Your task to perform on an android device: Go to Google maps Image 0: 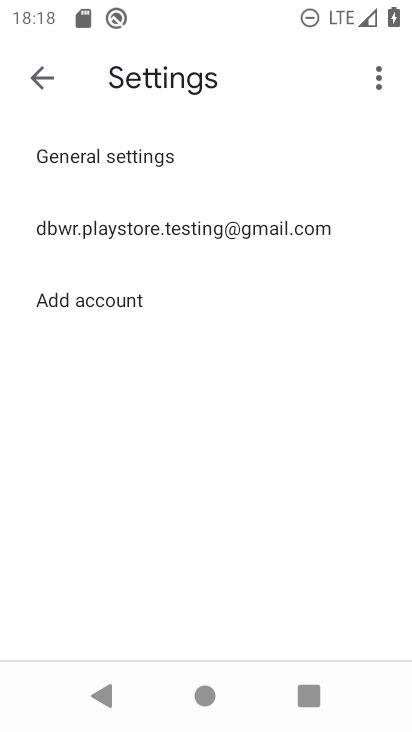
Step 0: press home button
Your task to perform on an android device: Go to Google maps Image 1: 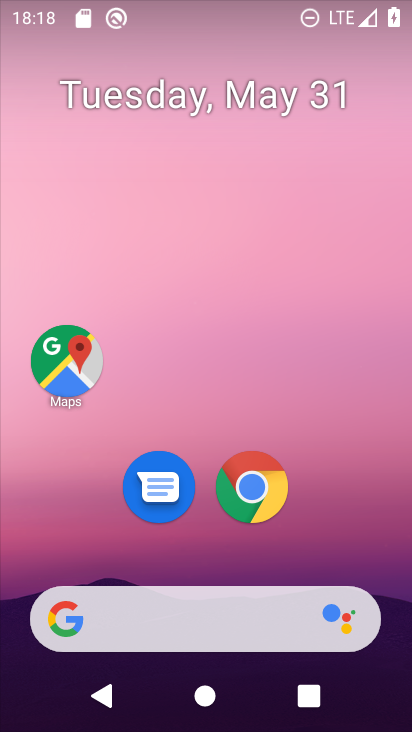
Step 1: click (49, 351)
Your task to perform on an android device: Go to Google maps Image 2: 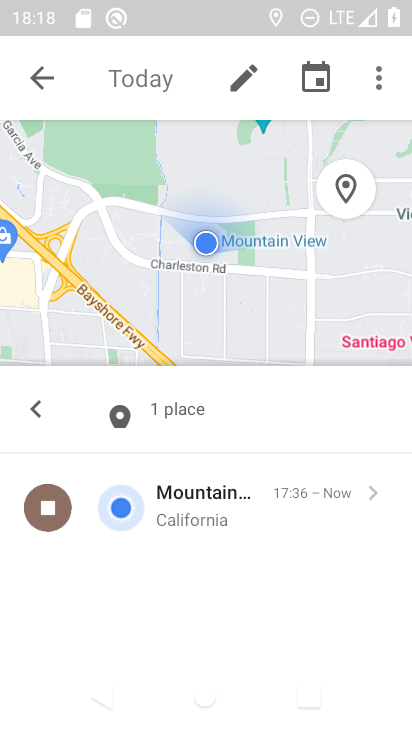
Step 2: click (42, 72)
Your task to perform on an android device: Go to Google maps Image 3: 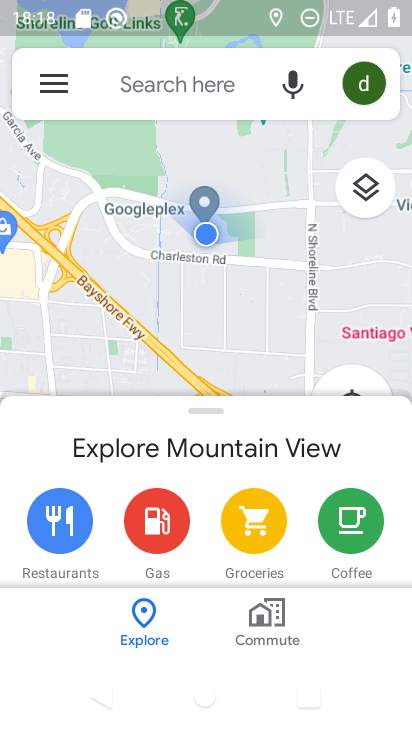
Step 3: task complete